Your task to perform on an android device: Search for macbook pro 15 inch on ebay, select the first entry, and add it to the cart. Image 0: 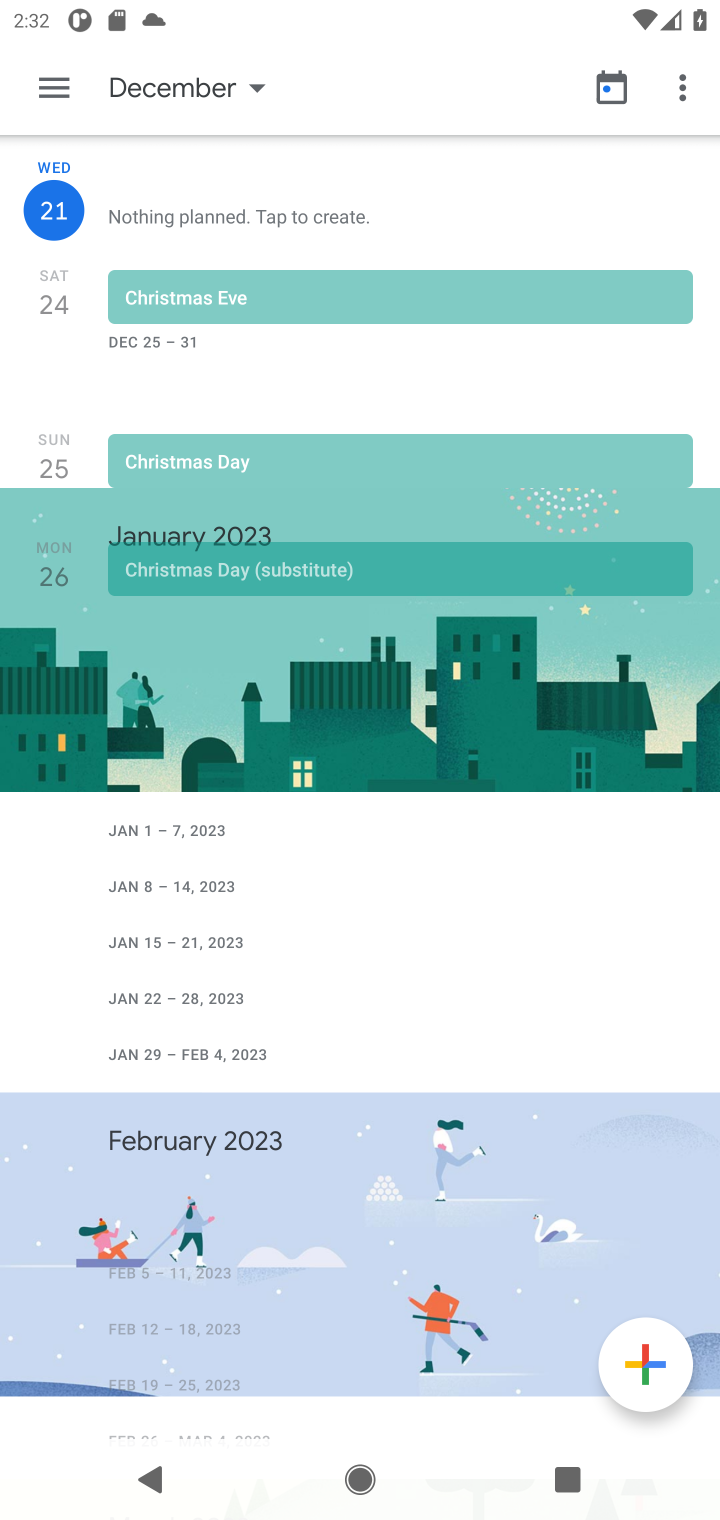
Step 0: press home button
Your task to perform on an android device: Search for macbook pro 15 inch on ebay, select the first entry, and add it to the cart. Image 1: 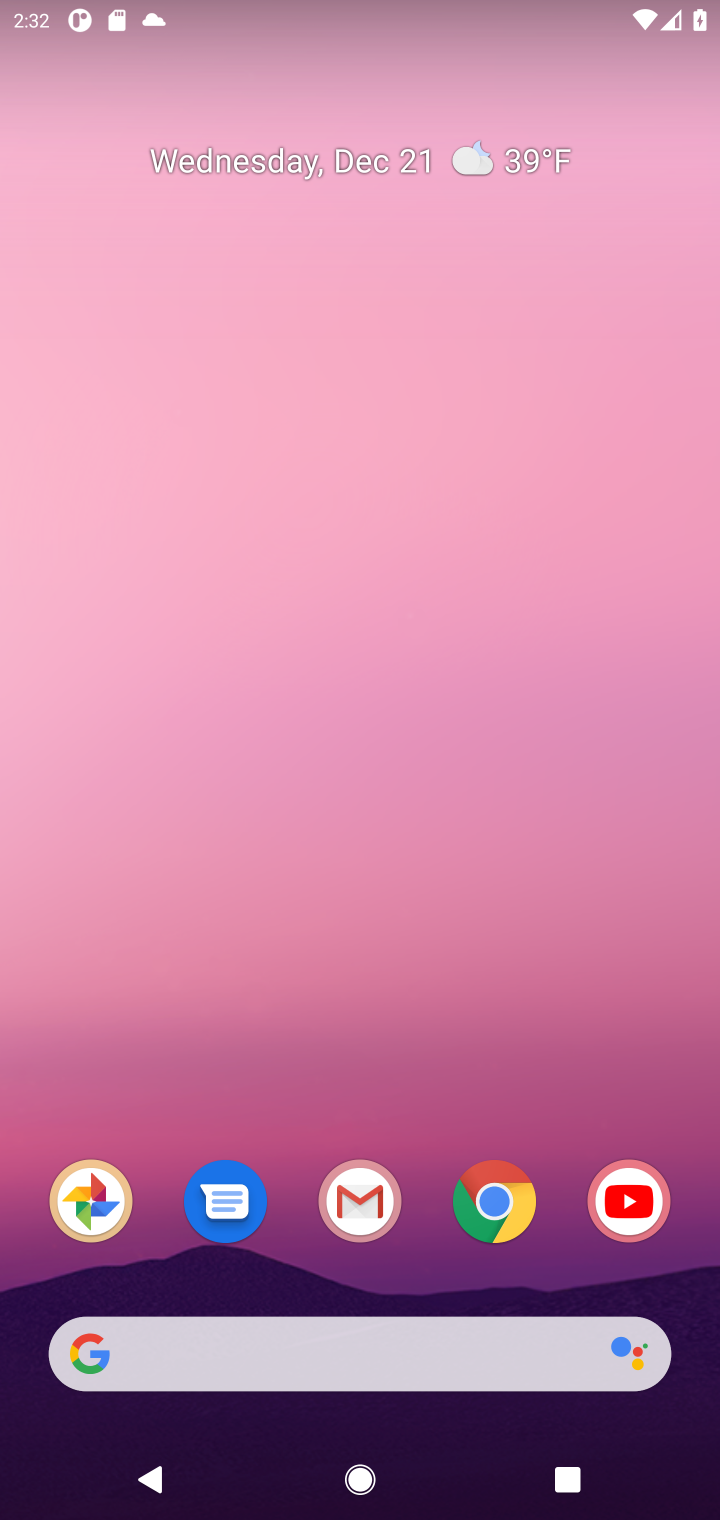
Step 1: click (493, 1210)
Your task to perform on an android device: Search for macbook pro 15 inch on ebay, select the first entry, and add it to the cart. Image 2: 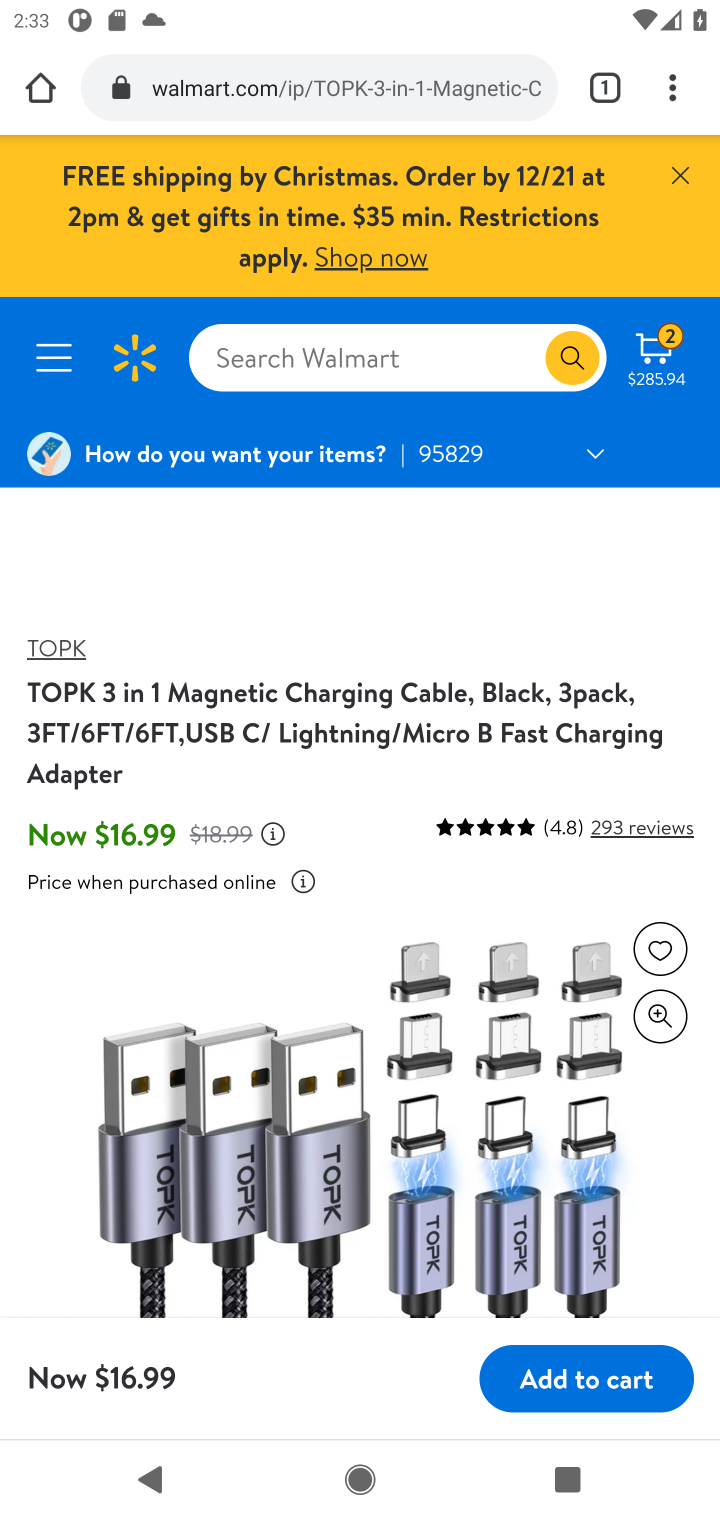
Step 2: click (228, 101)
Your task to perform on an android device: Search for macbook pro 15 inch on ebay, select the first entry, and add it to the cart. Image 3: 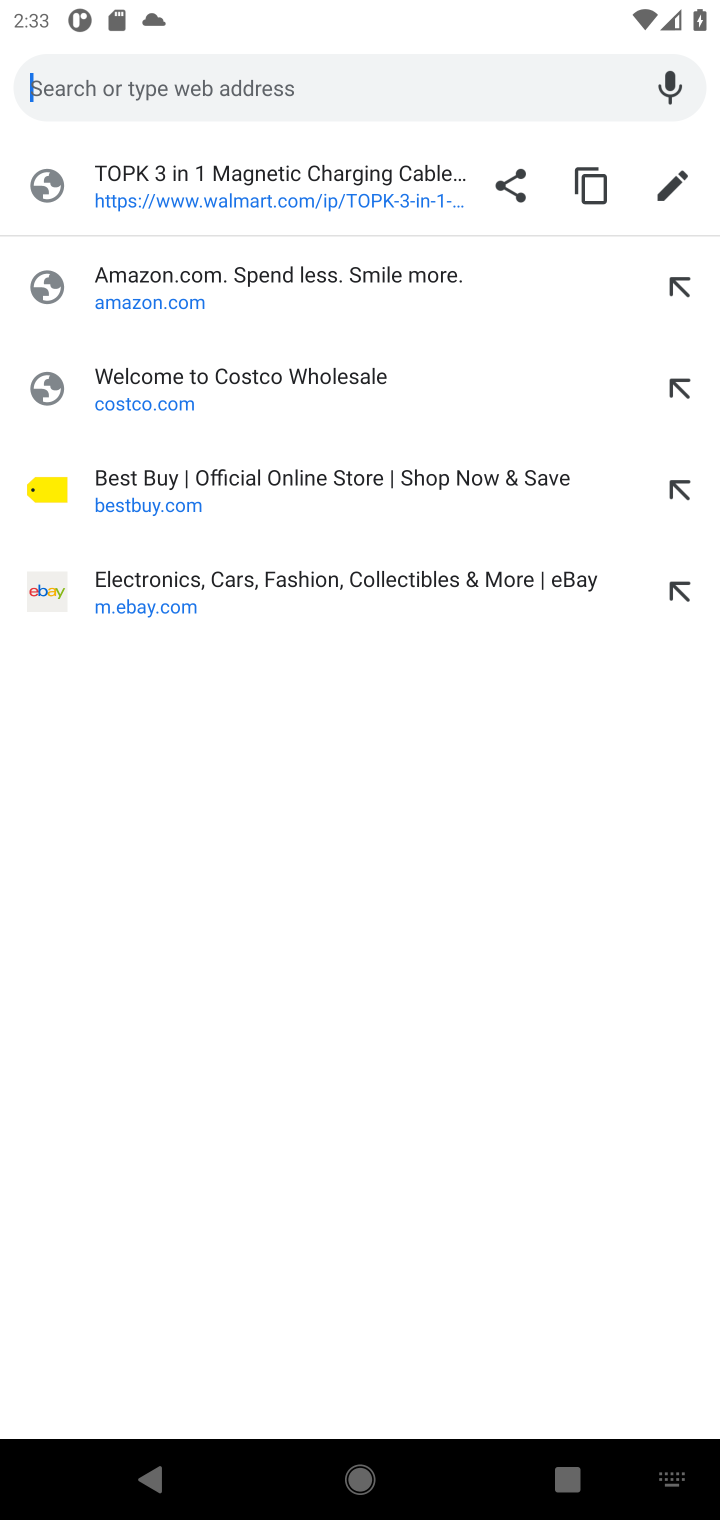
Step 3: click (144, 595)
Your task to perform on an android device: Search for macbook pro 15 inch on ebay, select the first entry, and add it to the cart. Image 4: 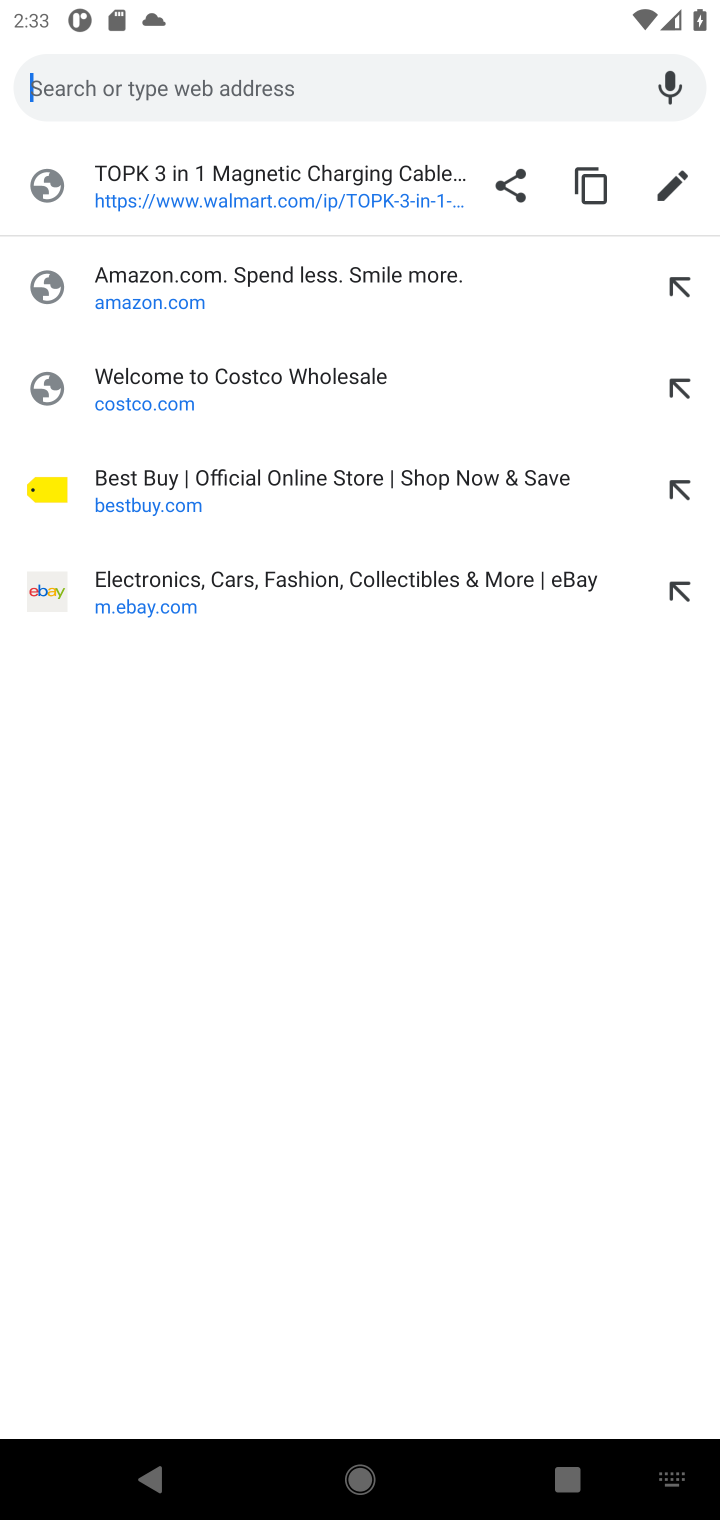
Step 4: click (141, 599)
Your task to perform on an android device: Search for macbook pro 15 inch on ebay, select the first entry, and add it to the cart. Image 5: 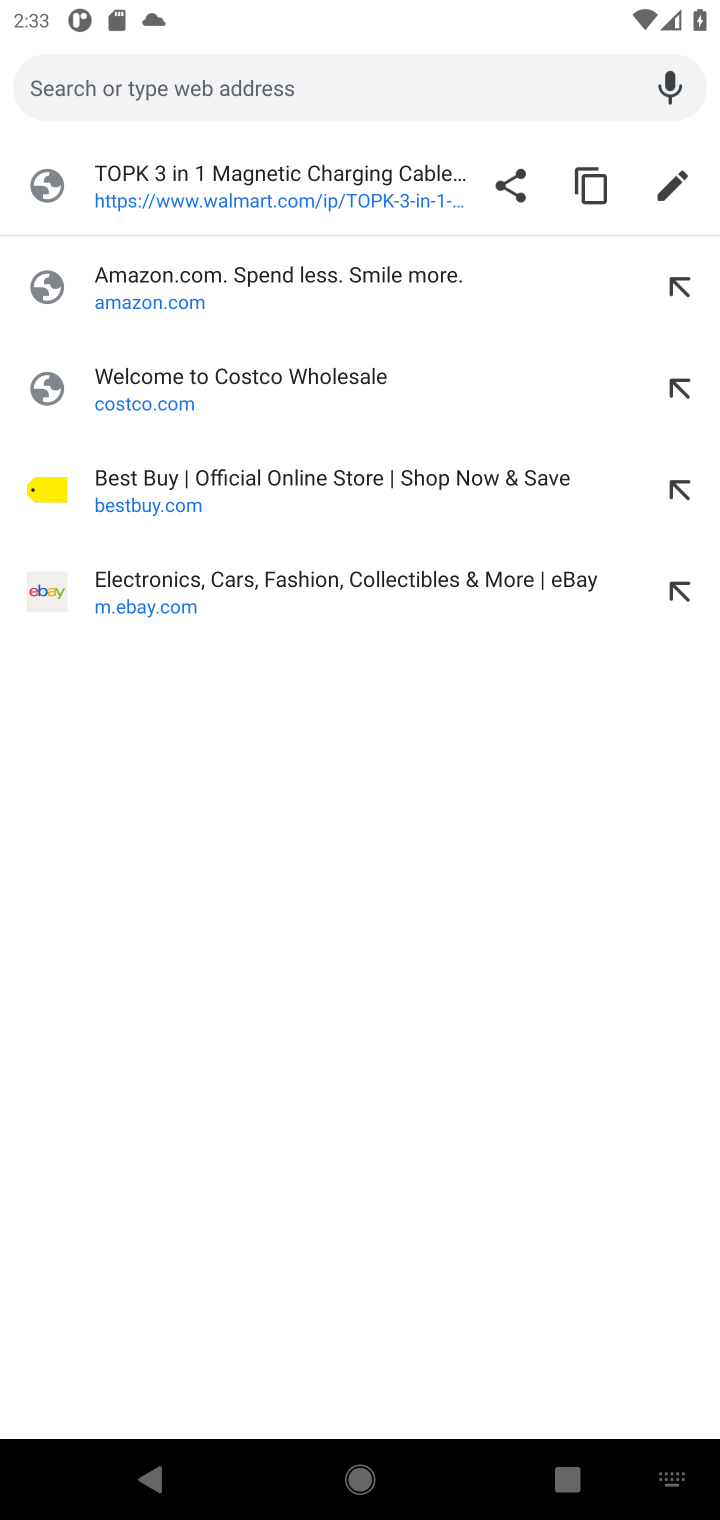
Step 5: click (157, 588)
Your task to perform on an android device: Search for macbook pro 15 inch on ebay, select the first entry, and add it to the cart. Image 6: 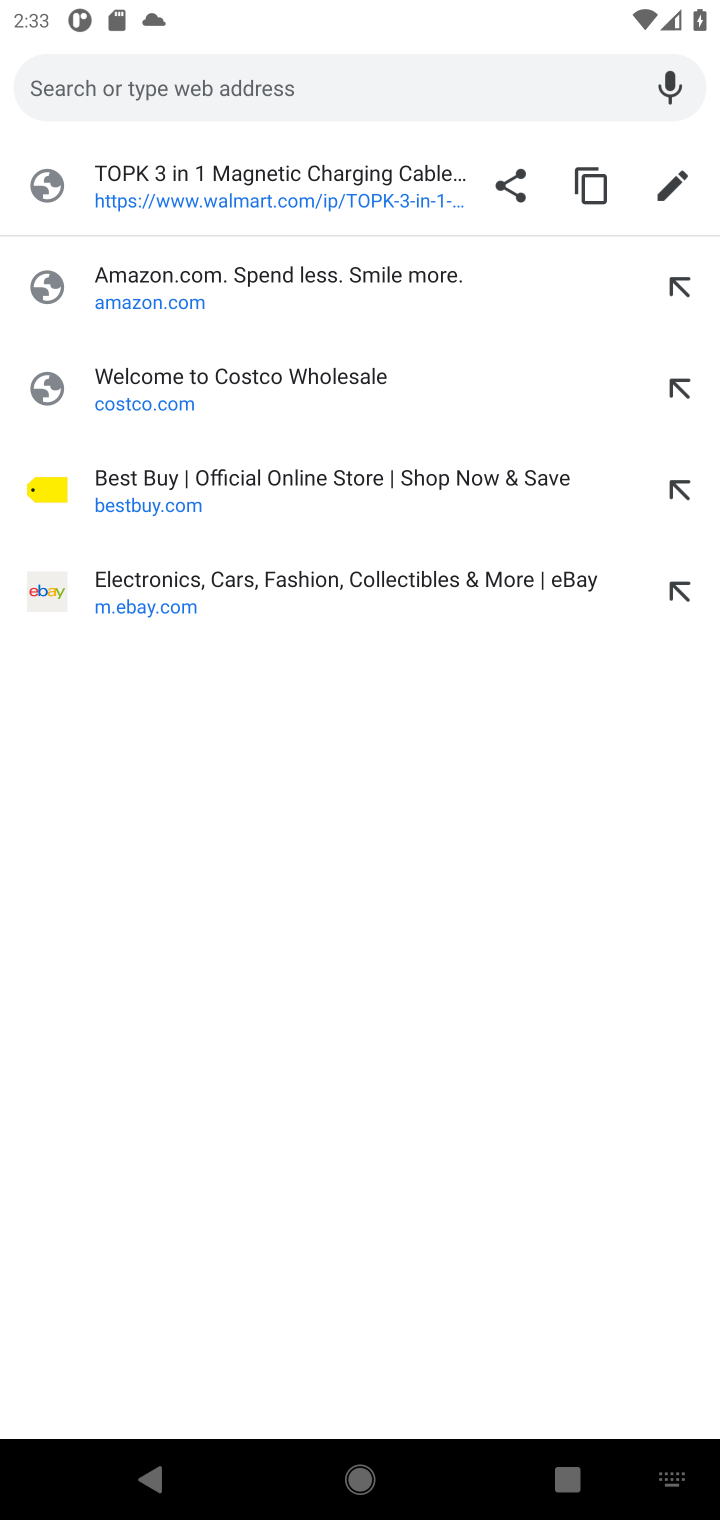
Step 6: click (112, 611)
Your task to perform on an android device: Search for macbook pro 15 inch on ebay, select the first entry, and add it to the cart. Image 7: 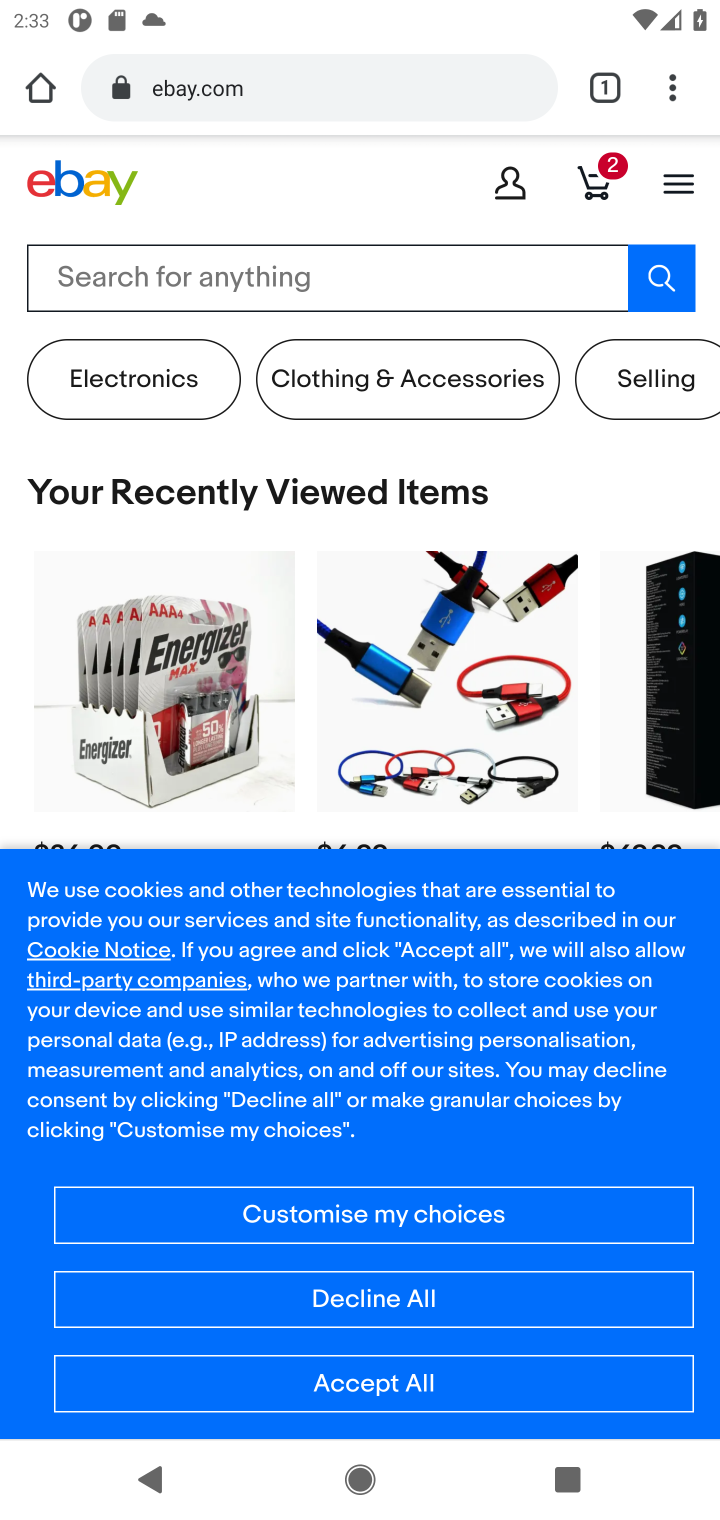
Step 7: click (182, 278)
Your task to perform on an android device: Search for macbook pro 15 inch on ebay, select the first entry, and add it to the cart. Image 8: 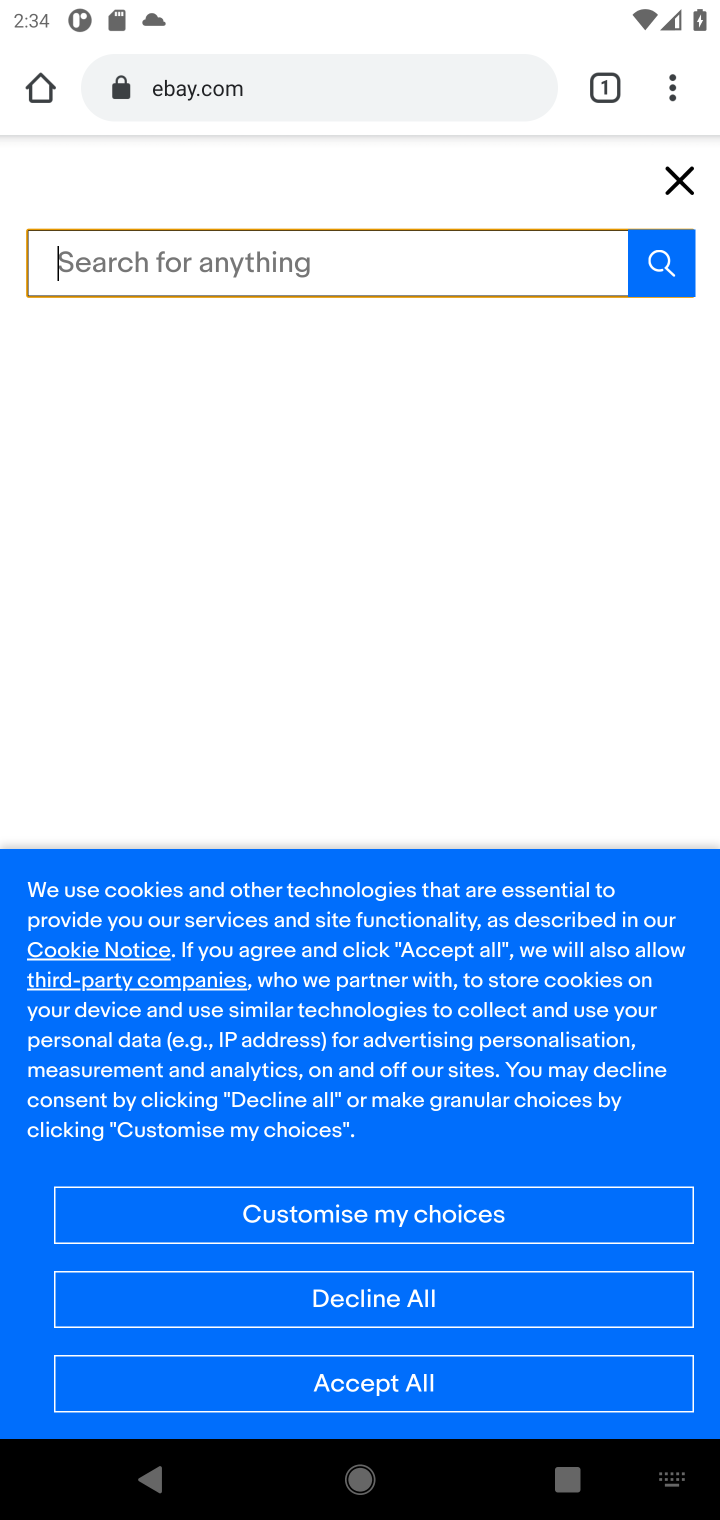
Step 8: type "macbook pro 15 inch"
Your task to perform on an android device: Search for macbook pro 15 inch on ebay, select the first entry, and add it to the cart. Image 9: 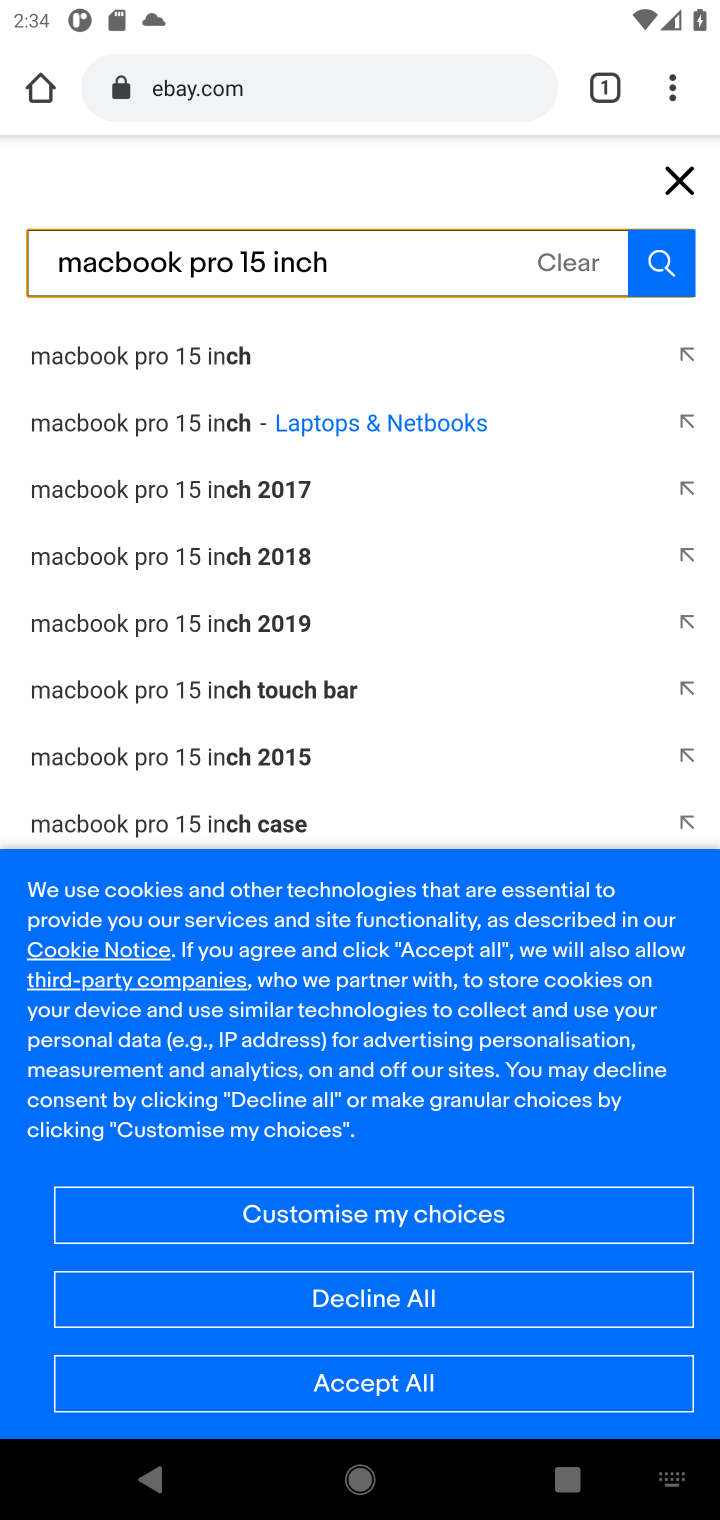
Step 9: click (167, 356)
Your task to perform on an android device: Search for macbook pro 15 inch on ebay, select the first entry, and add it to the cart. Image 10: 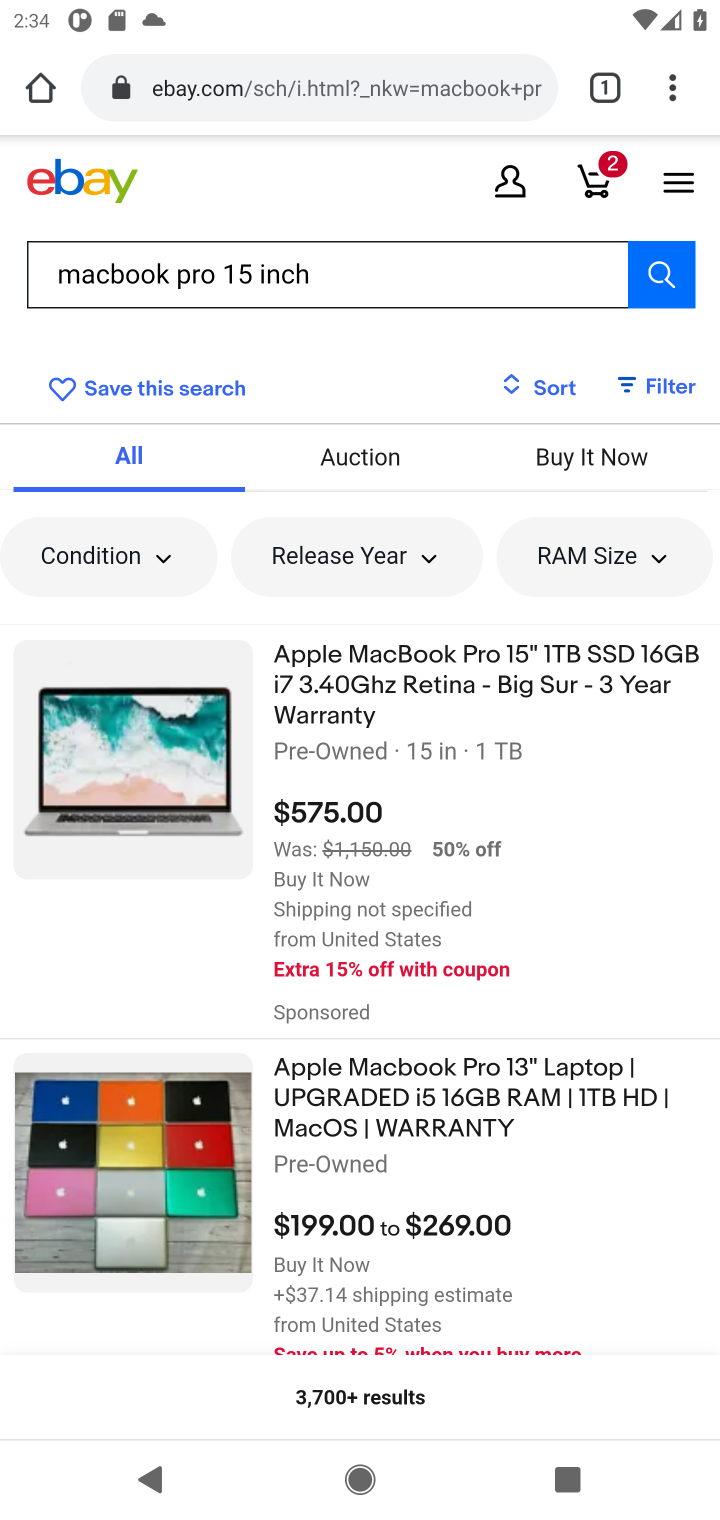
Step 10: click (334, 701)
Your task to perform on an android device: Search for macbook pro 15 inch on ebay, select the first entry, and add it to the cart. Image 11: 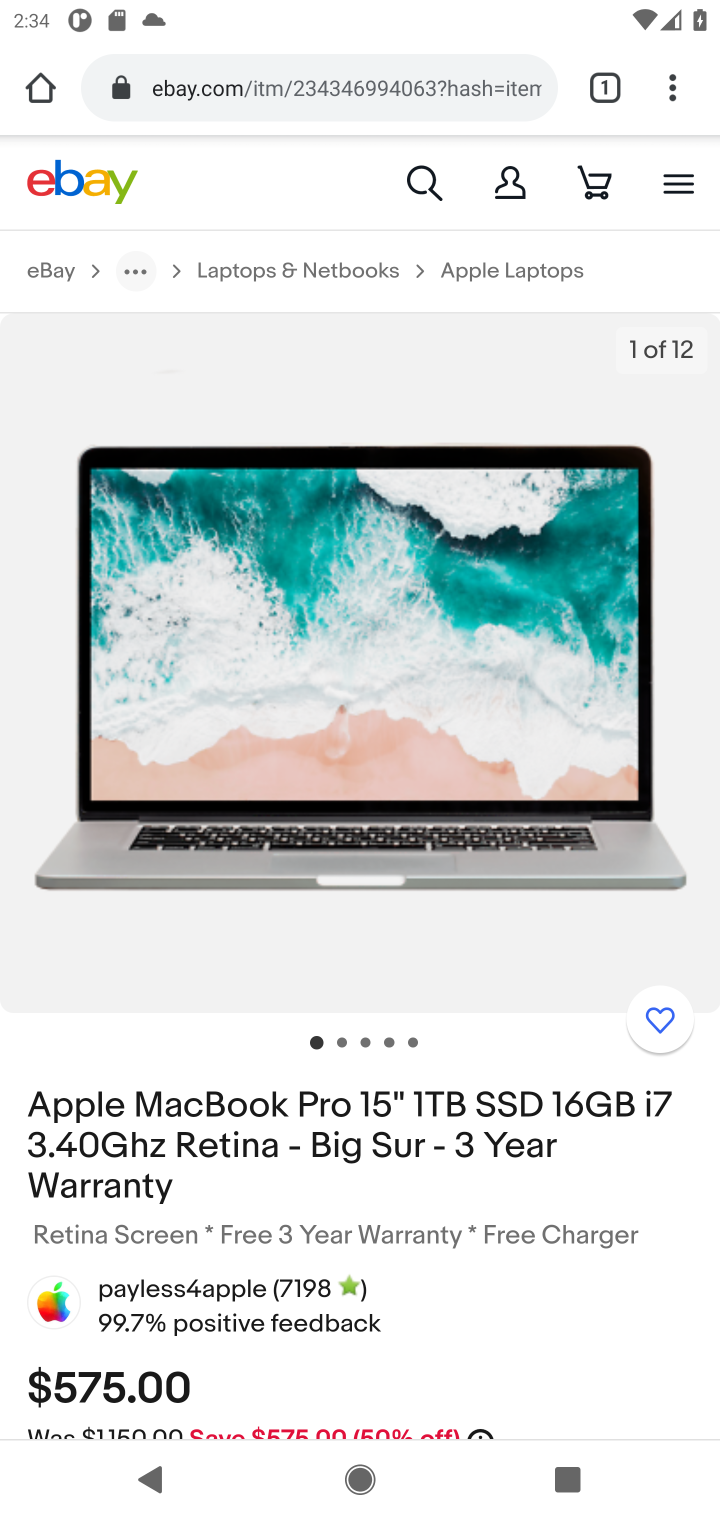
Step 11: drag from (339, 905) to (299, 342)
Your task to perform on an android device: Search for macbook pro 15 inch on ebay, select the first entry, and add it to the cart. Image 12: 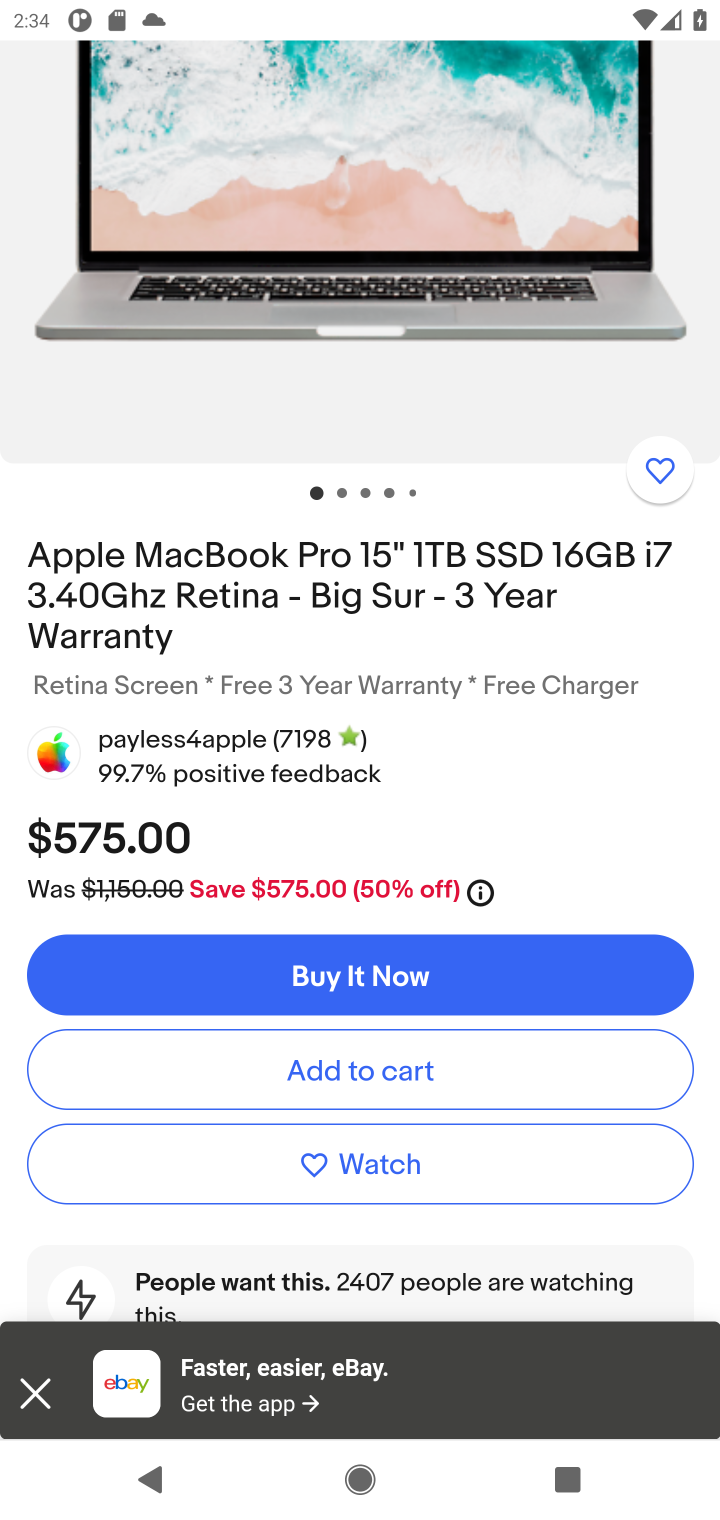
Step 12: click (370, 1066)
Your task to perform on an android device: Search for macbook pro 15 inch on ebay, select the first entry, and add it to the cart. Image 13: 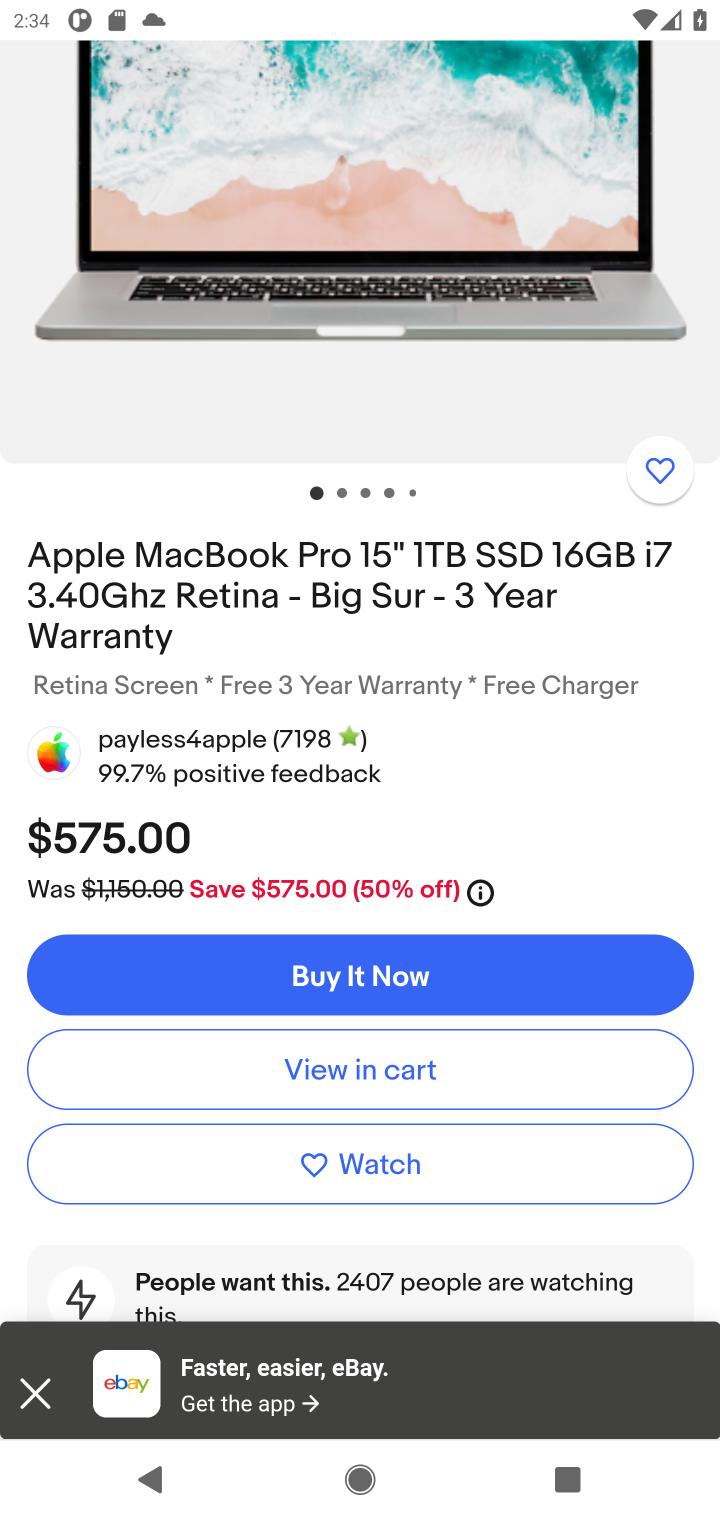
Step 13: task complete